Your task to perform on an android device: move a message to another label in the gmail app Image 0: 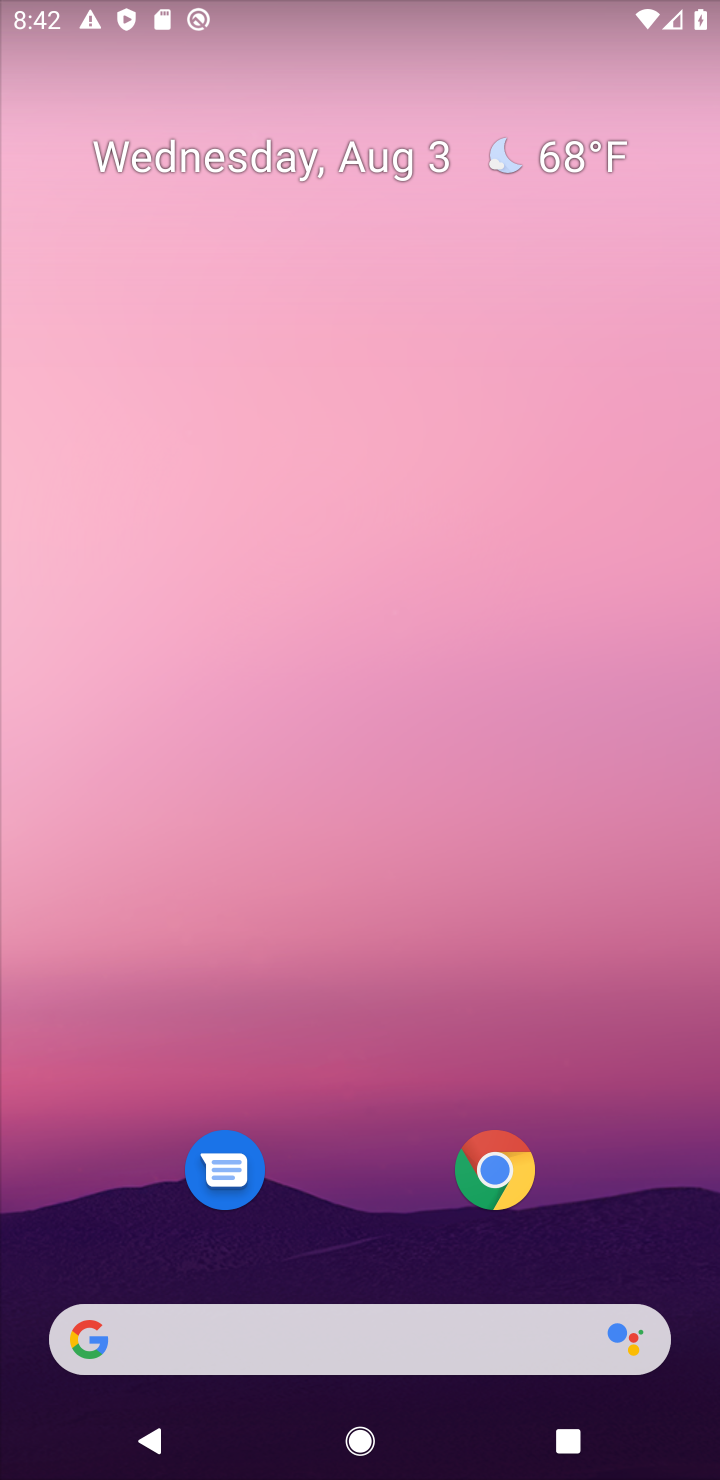
Step 0: drag from (665, 1210) to (616, 385)
Your task to perform on an android device: move a message to another label in the gmail app Image 1: 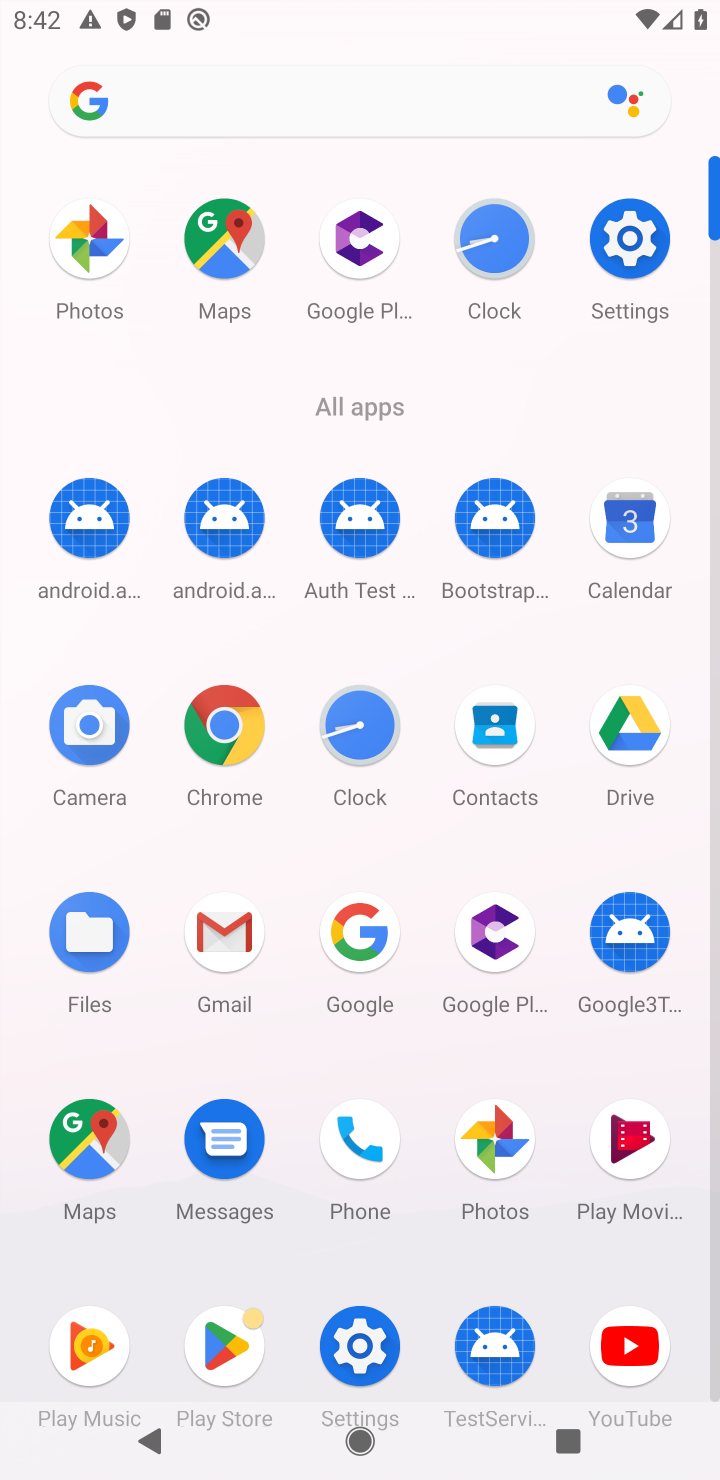
Step 1: click (221, 935)
Your task to perform on an android device: move a message to another label in the gmail app Image 2: 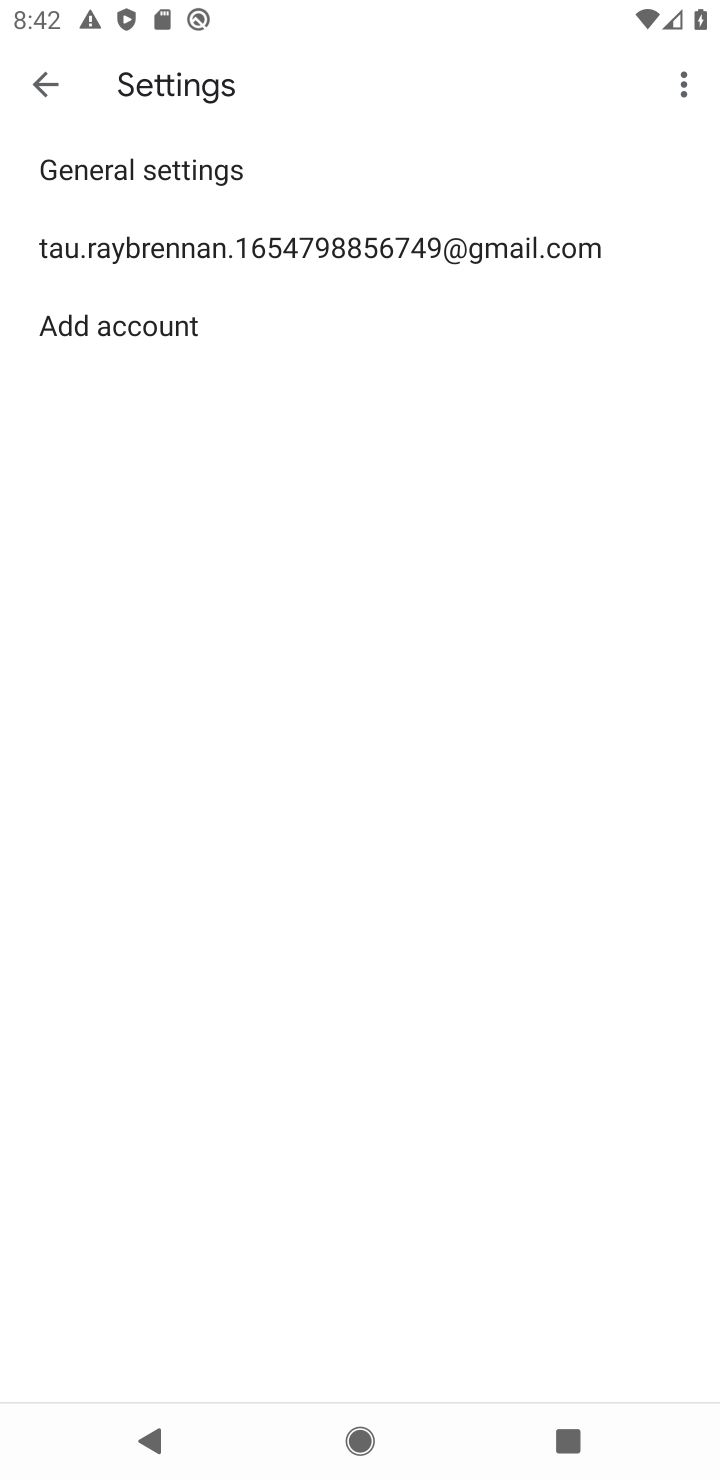
Step 2: press back button
Your task to perform on an android device: move a message to another label in the gmail app Image 3: 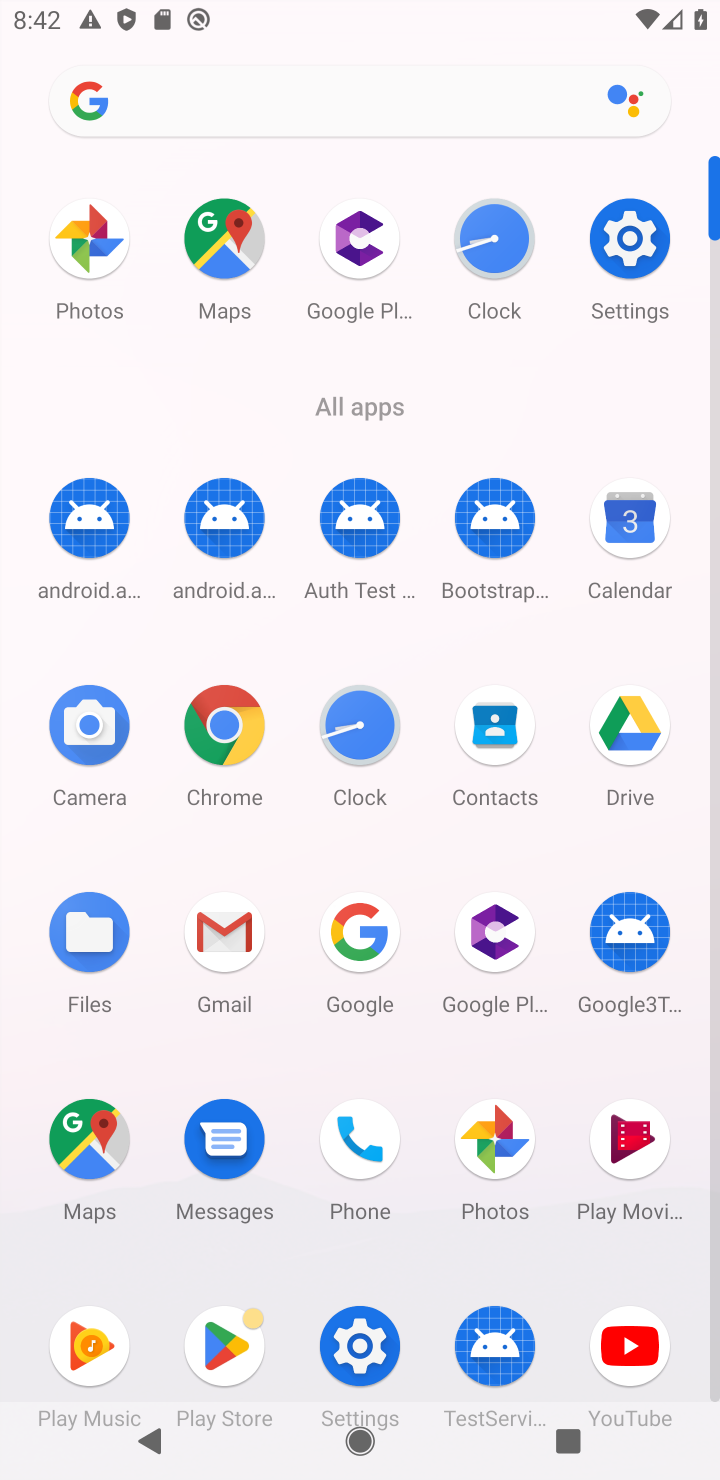
Step 3: click (221, 929)
Your task to perform on an android device: move a message to another label in the gmail app Image 4: 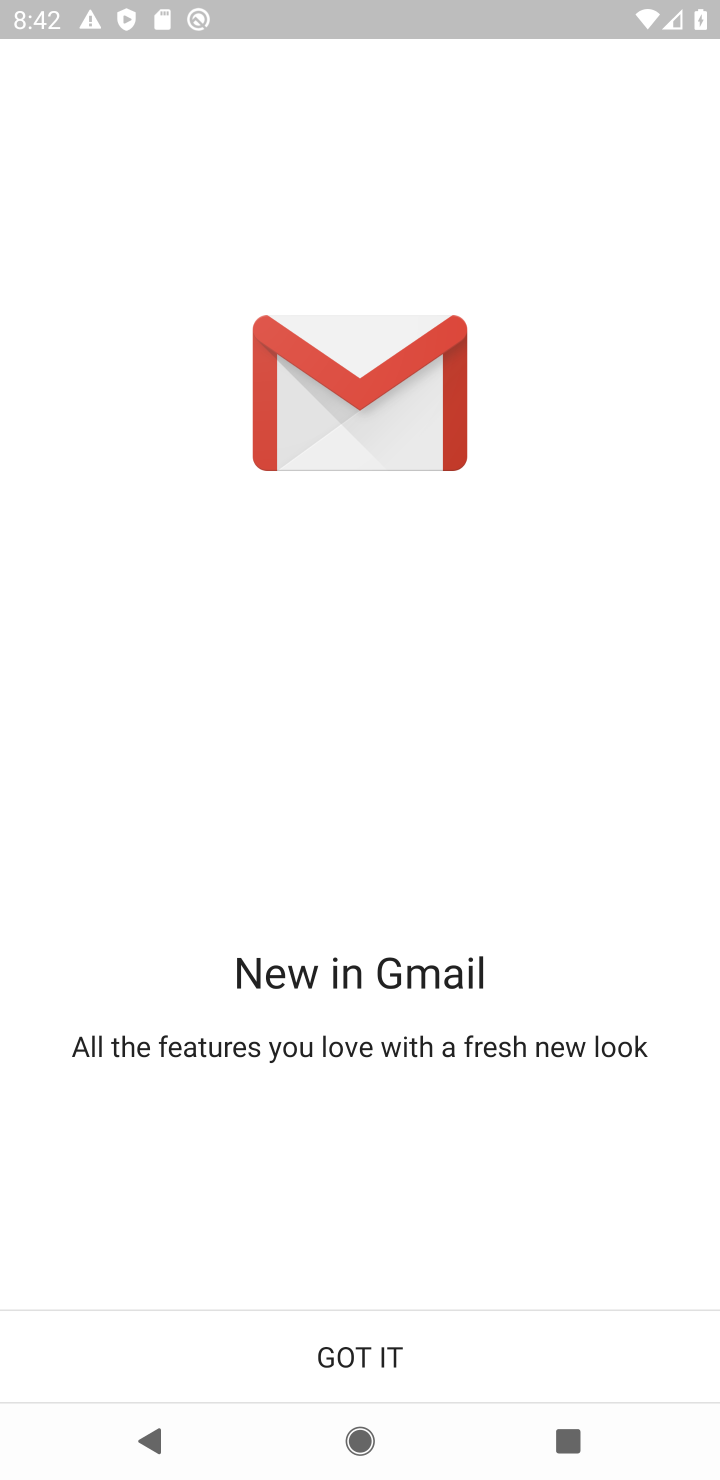
Step 4: click (371, 1354)
Your task to perform on an android device: move a message to another label in the gmail app Image 5: 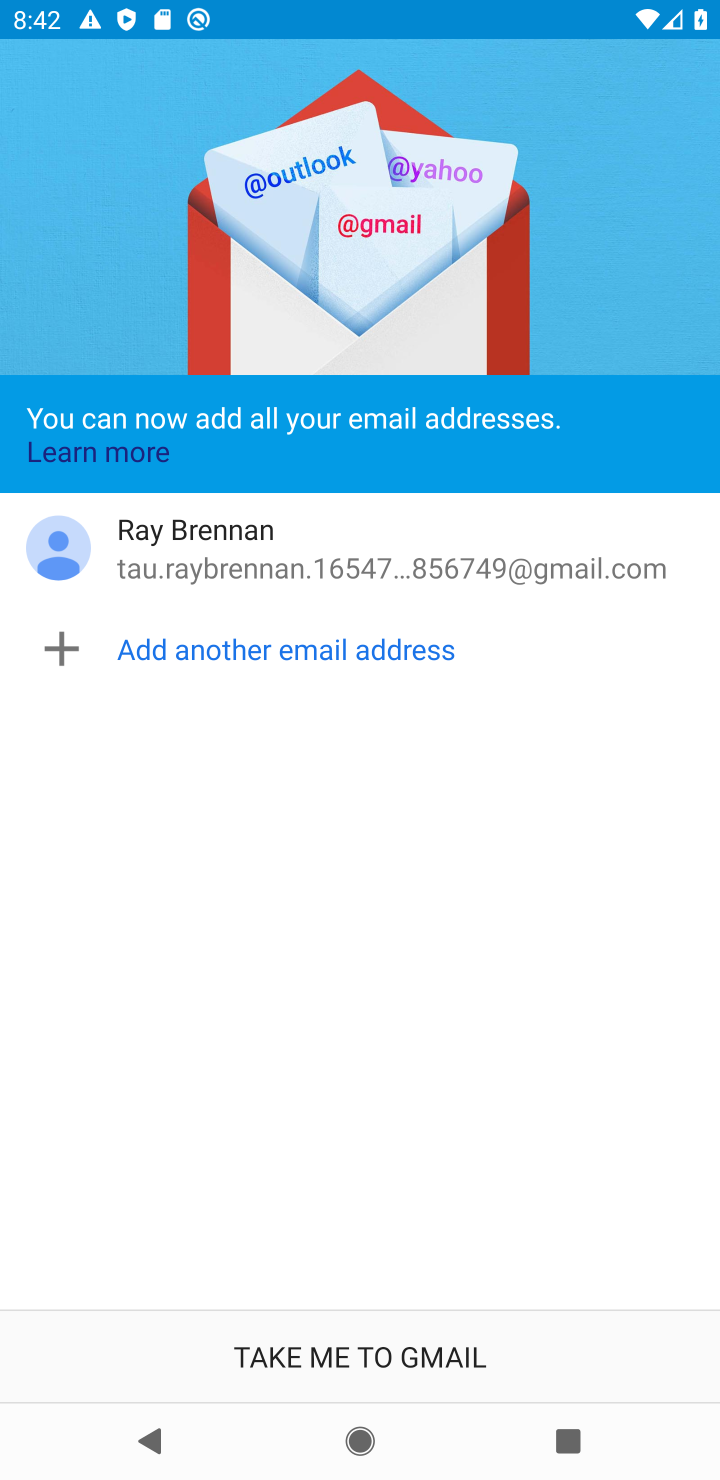
Step 5: click (341, 1338)
Your task to perform on an android device: move a message to another label in the gmail app Image 6: 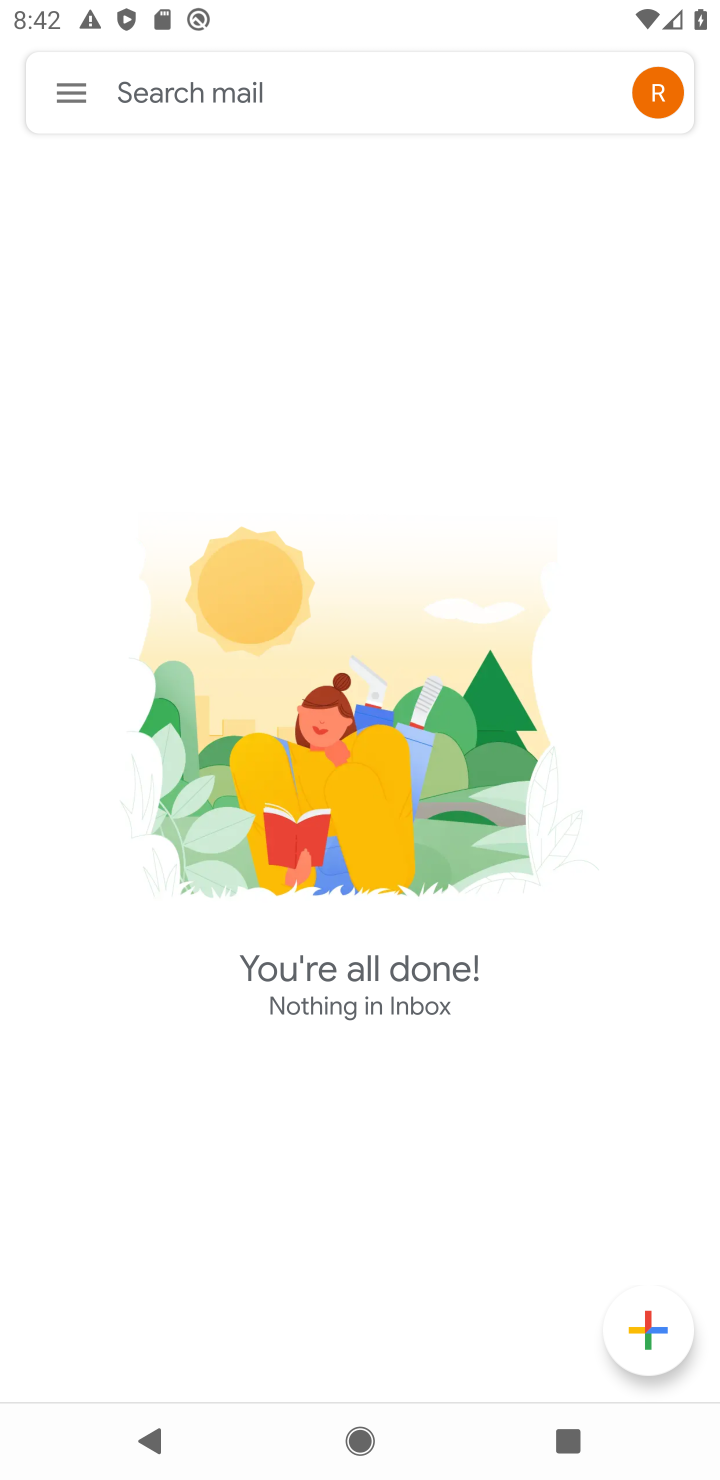
Step 6: click (71, 100)
Your task to perform on an android device: move a message to another label in the gmail app Image 7: 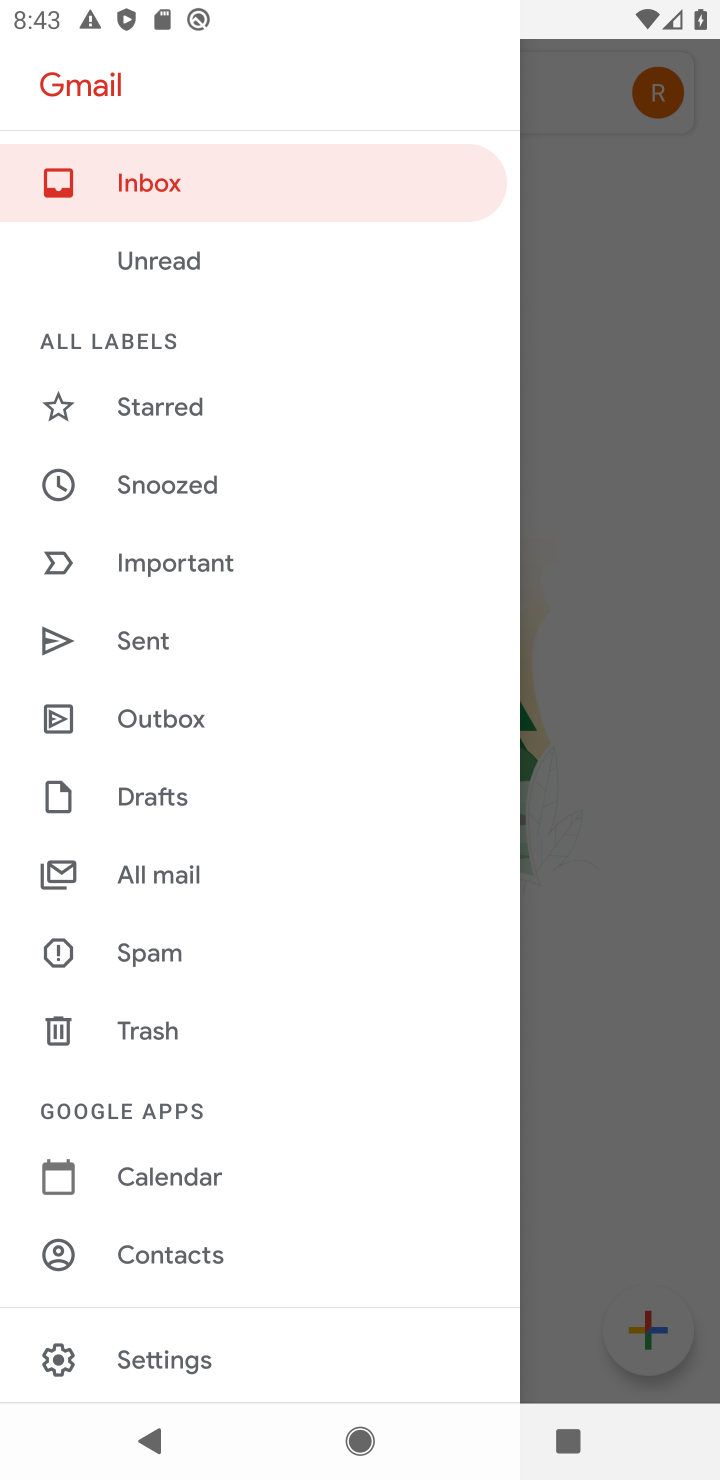
Step 7: click (167, 864)
Your task to perform on an android device: move a message to another label in the gmail app Image 8: 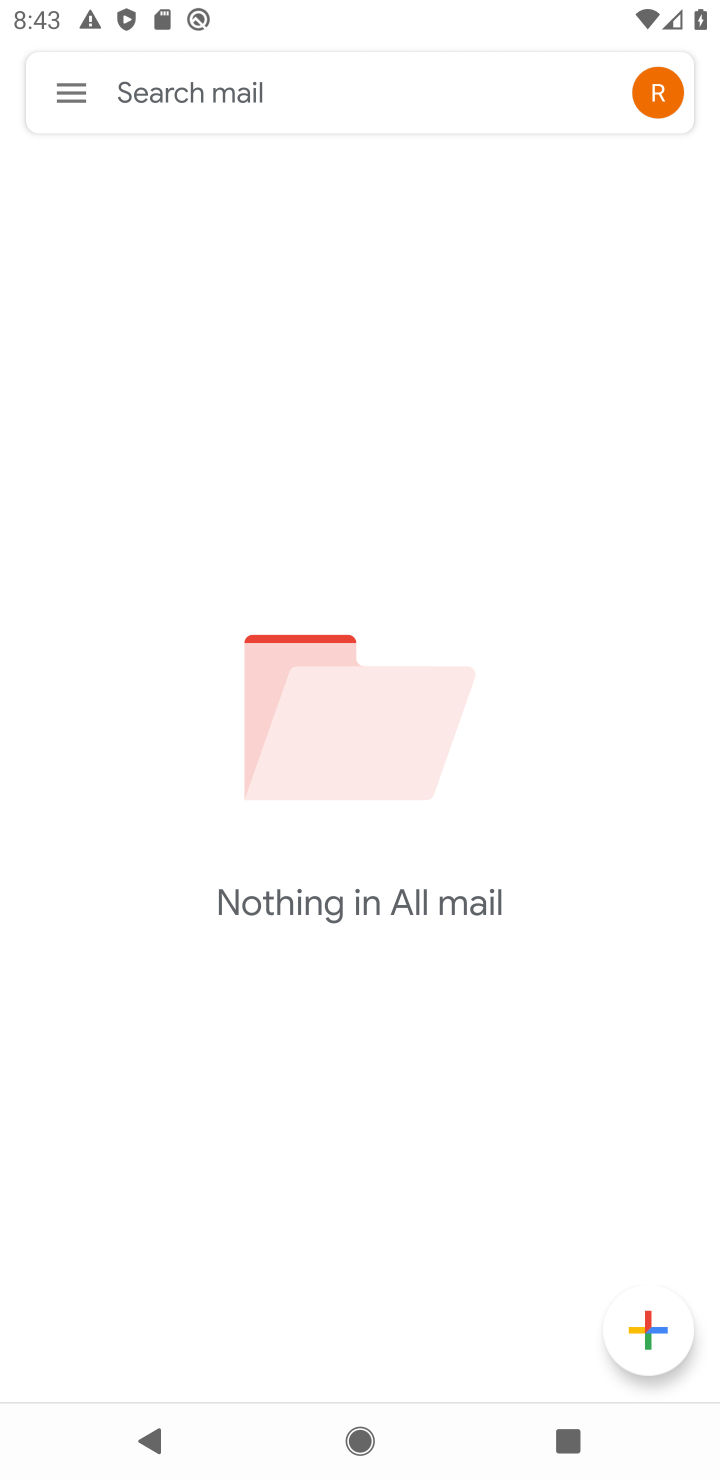
Step 8: task complete